Your task to perform on an android device: open sync settings in chrome Image 0: 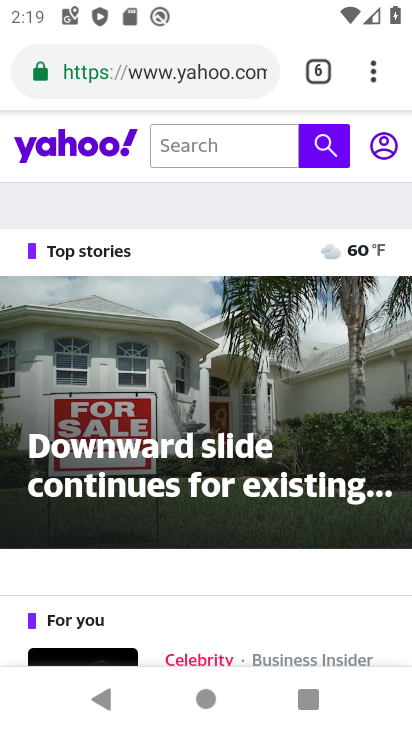
Step 0: click (374, 80)
Your task to perform on an android device: open sync settings in chrome Image 1: 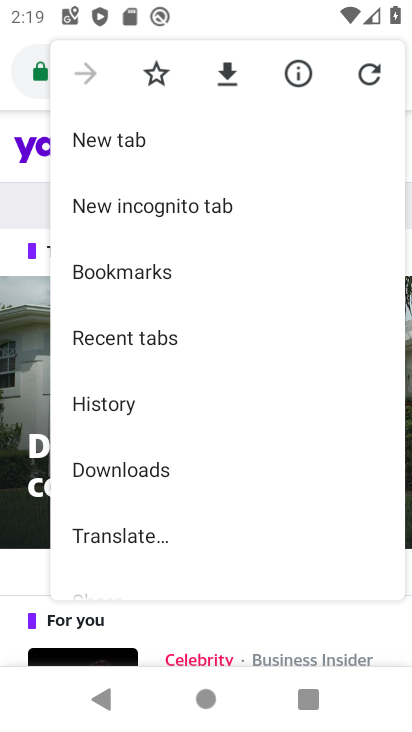
Step 1: drag from (137, 449) to (137, 135)
Your task to perform on an android device: open sync settings in chrome Image 2: 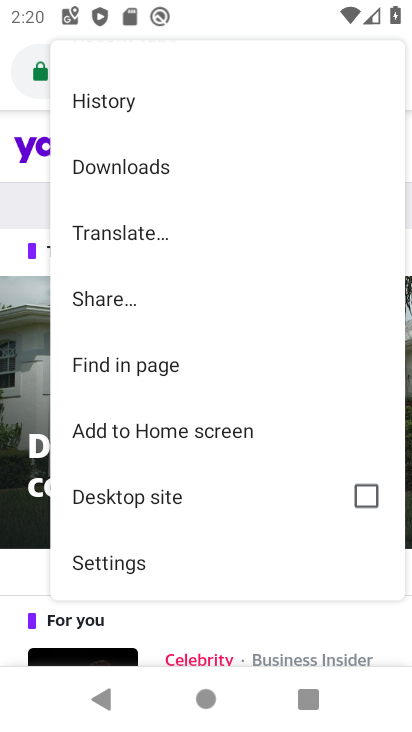
Step 2: click (108, 561)
Your task to perform on an android device: open sync settings in chrome Image 3: 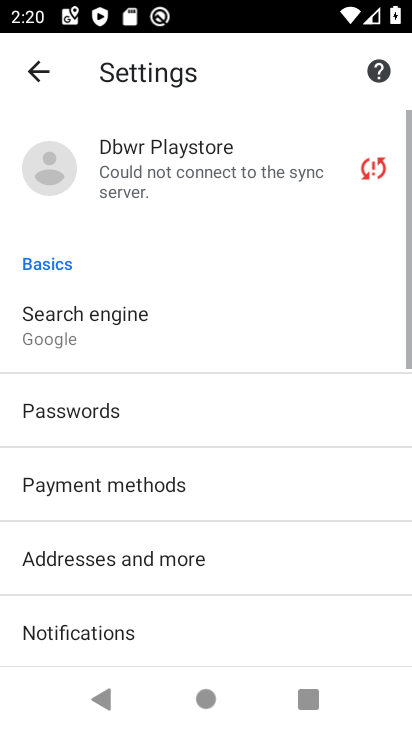
Step 3: drag from (159, 619) to (181, 153)
Your task to perform on an android device: open sync settings in chrome Image 4: 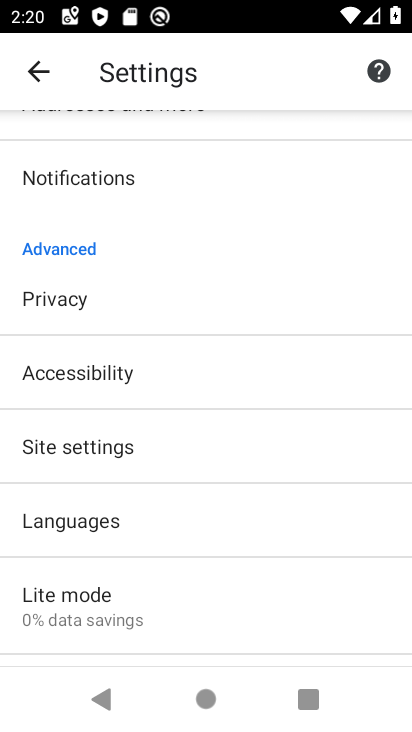
Step 4: click (94, 444)
Your task to perform on an android device: open sync settings in chrome Image 5: 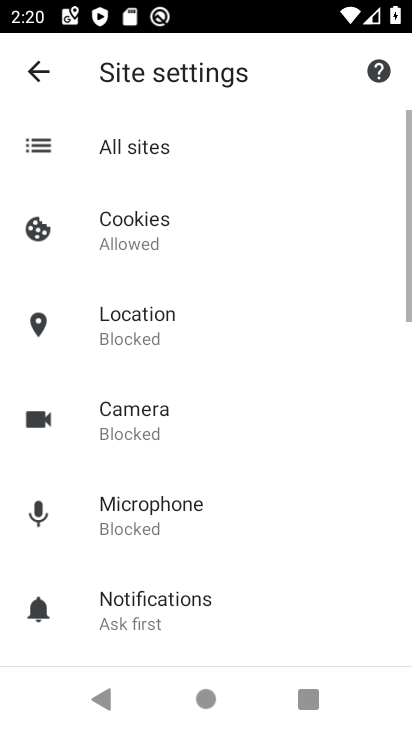
Step 5: drag from (139, 553) to (145, 243)
Your task to perform on an android device: open sync settings in chrome Image 6: 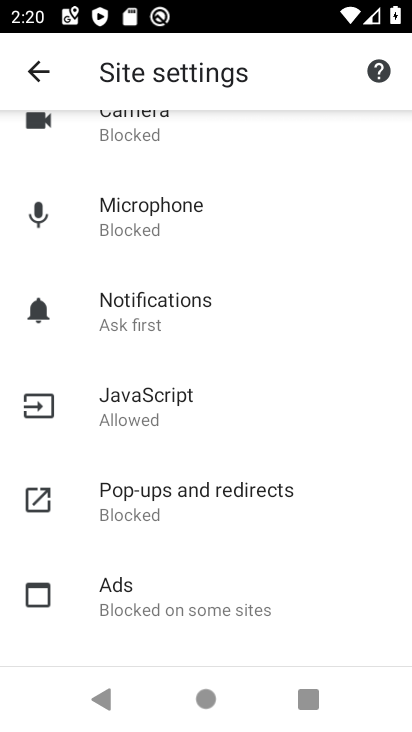
Step 6: drag from (135, 587) to (178, 263)
Your task to perform on an android device: open sync settings in chrome Image 7: 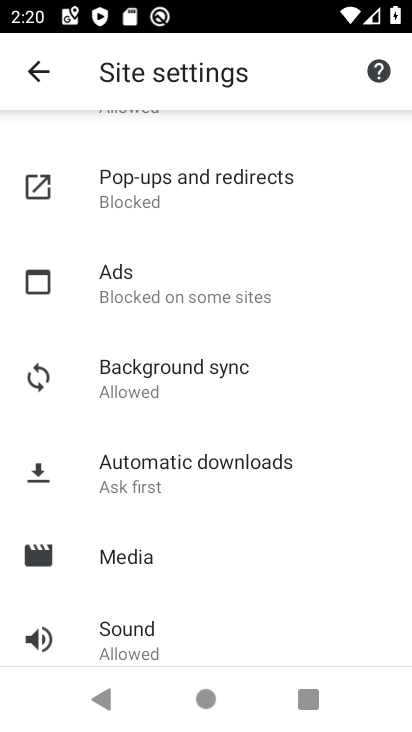
Step 7: click (166, 375)
Your task to perform on an android device: open sync settings in chrome Image 8: 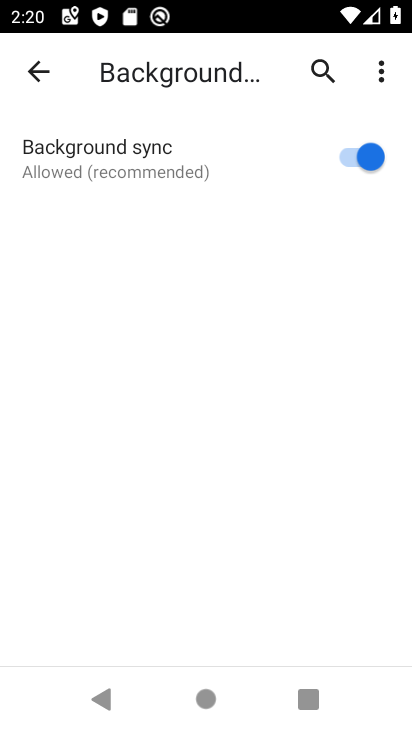
Step 8: task complete